Your task to perform on an android device: Open Google Chrome and click the shortcut for Amazon.com Image 0: 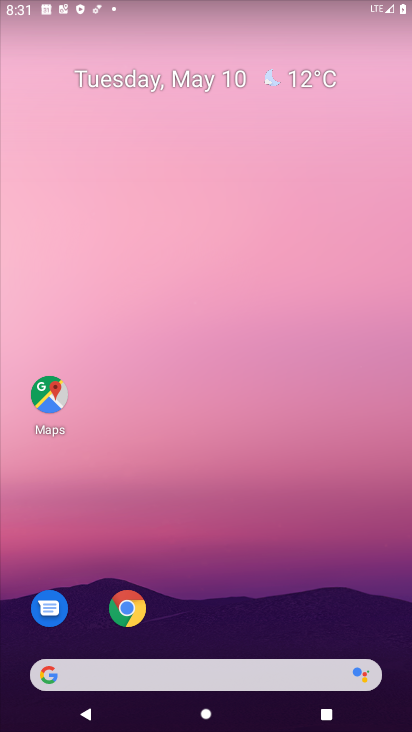
Step 0: press home button
Your task to perform on an android device: Open Google Chrome and click the shortcut for Amazon.com Image 1: 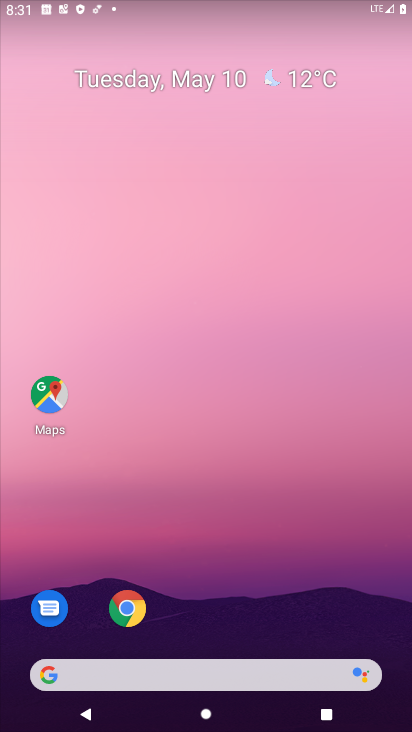
Step 1: drag from (200, 686) to (336, 214)
Your task to perform on an android device: Open Google Chrome and click the shortcut for Amazon.com Image 2: 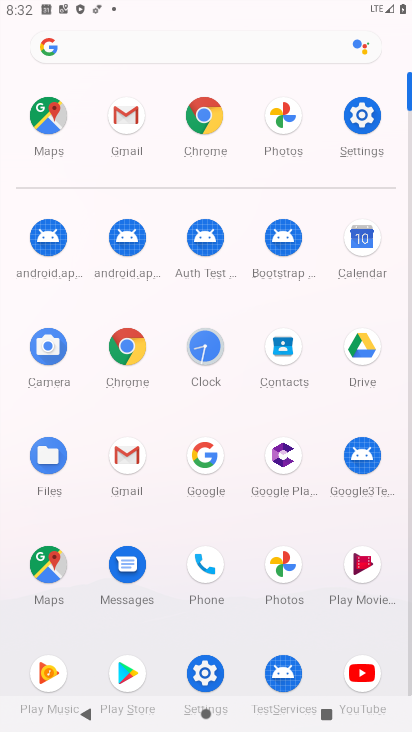
Step 2: click (210, 126)
Your task to perform on an android device: Open Google Chrome and click the shortcut for Amazon.com Image 3: 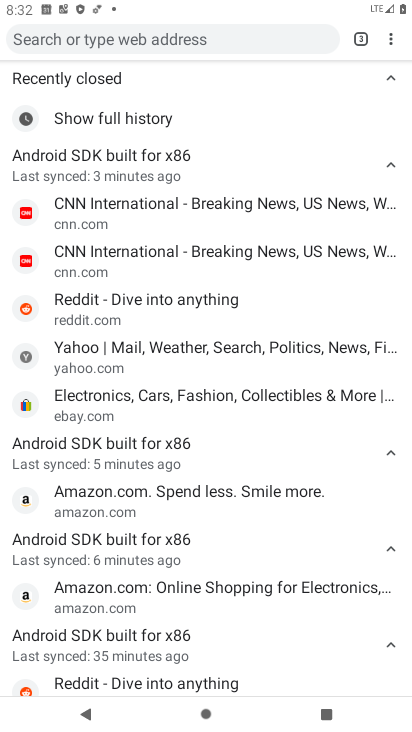
Step 3: drag from (392, 43) to (350, 75)
Your task to perform on an android device: Open Google Chrome and click the shortcut for Amazon.com Image 4: 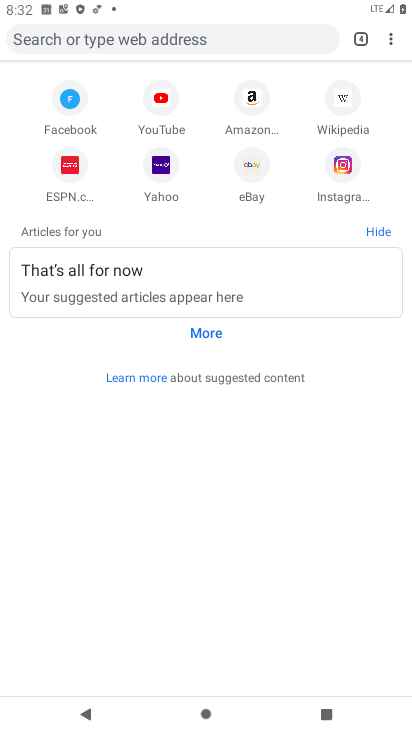
Step 4: click (252, 101)
Your task to perform on an android device: Open Google Chrome and click the shortcut for Amazon.com Image 5: 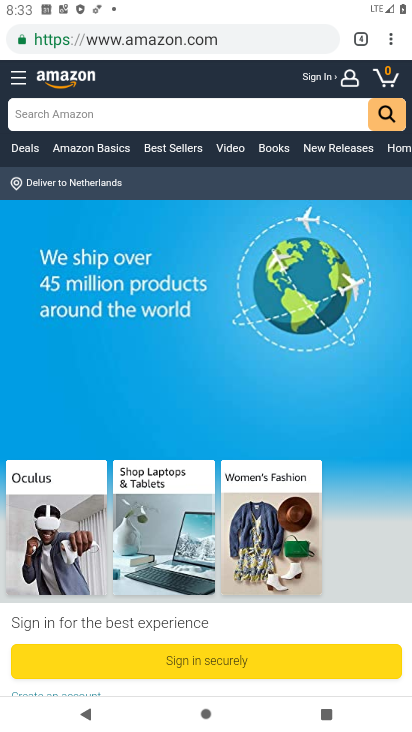
Step 5: task complete